Your task to perform on an android device: What is the recent news? Image 0: 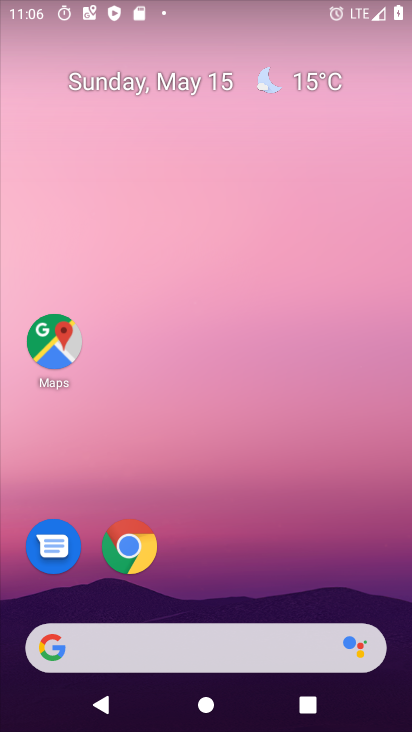
Step 0: drag from (219, 573) to (150, 197)
Your task to perform on an android device: What is the recent news? Image 1: 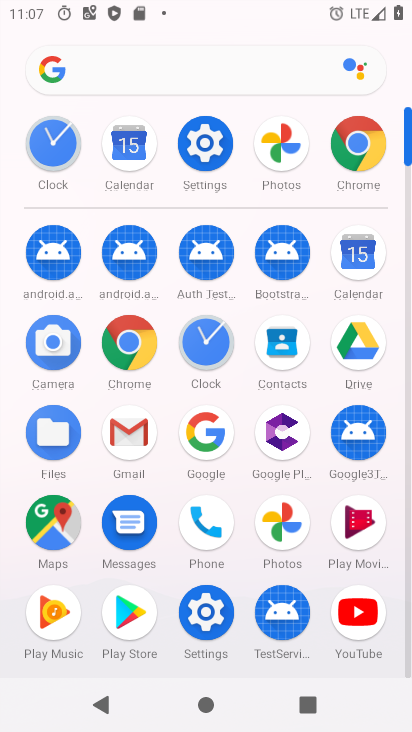
Step 1: press back button
Your task to perform on an android device: What is the recent news? Image 2: 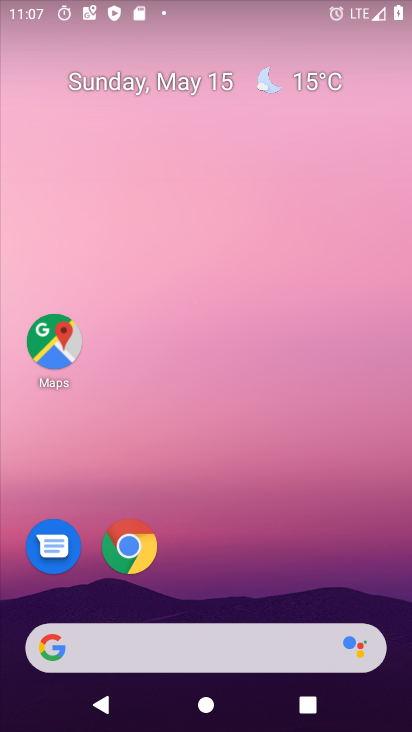
Step 2: drag from (51, 91) to (395, 311)
Your task to perform on an android device: What is the recent news? Image 3: 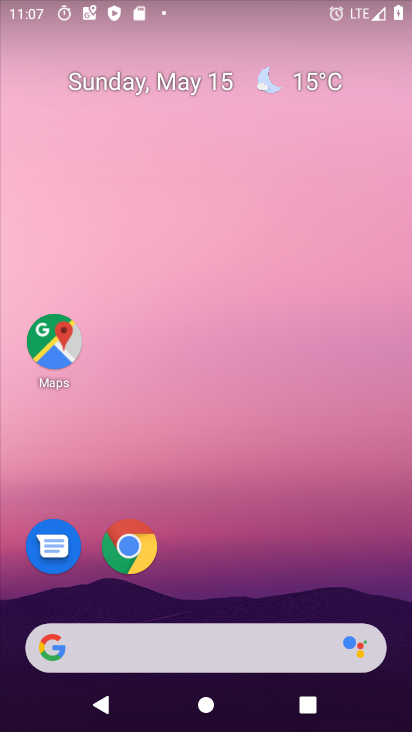
Step 3: drag from (4, 160) to (370, 393)
Your task to perform on an android device: What is the recent news? Image 4: 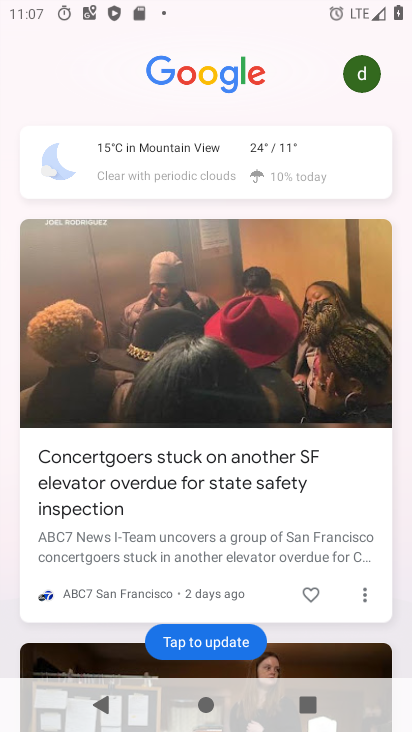
Step 4: click (172, 175)
Your task to perform on an android device: What is the recent news? Image 5: 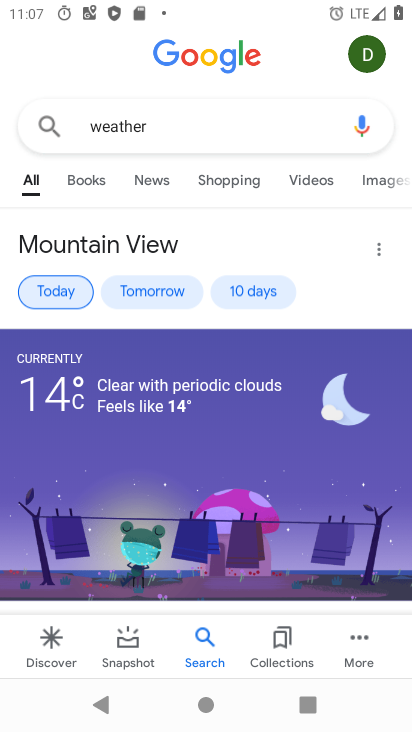
Step 5: drag from (154, 528) to (106, 87)
Your task to perform on an android device: What is the recent news? Image 6: 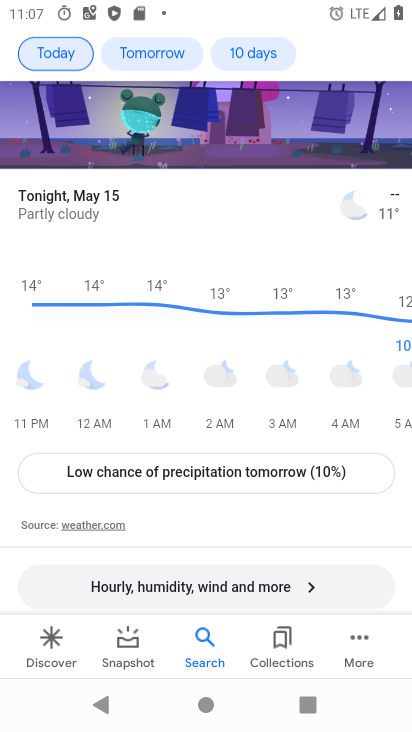
Step 6: drag from (205, 354) to (181, 57)
Your task to perform on an android device: What is the recent news? Image 7: 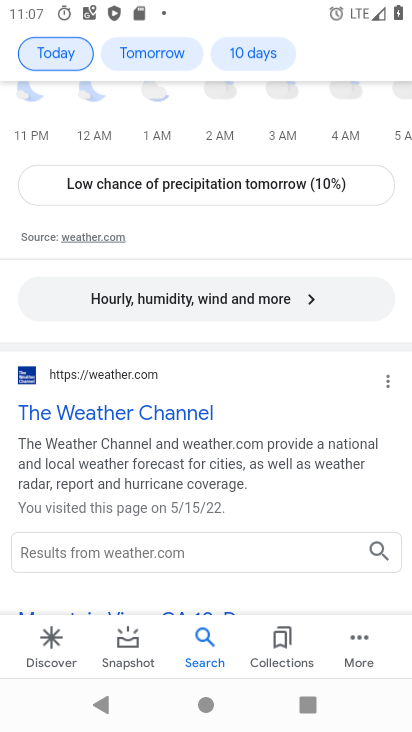
Step 7: drag from (240, 508) to (239, 160)
Your task to perform on an android device: What is the recent news? Image 8: 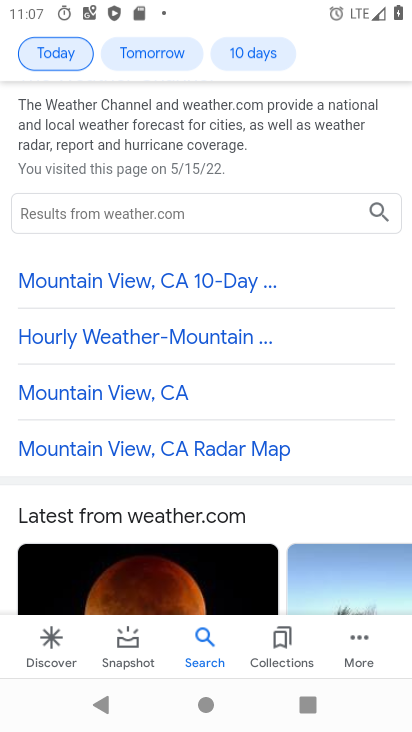
Step 8: press back button
Your task to perform on an android device: What is the recent news? Image 9: 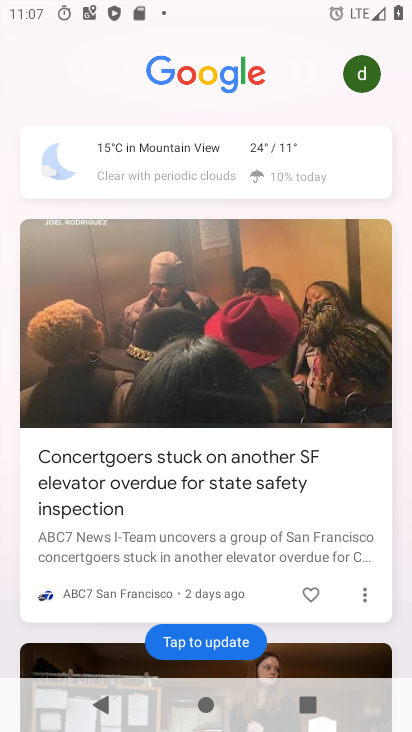
Step 9: drag from (195, 528) to (155, 230)
Your task to perform on an android device: What is the recent news? Image 10: 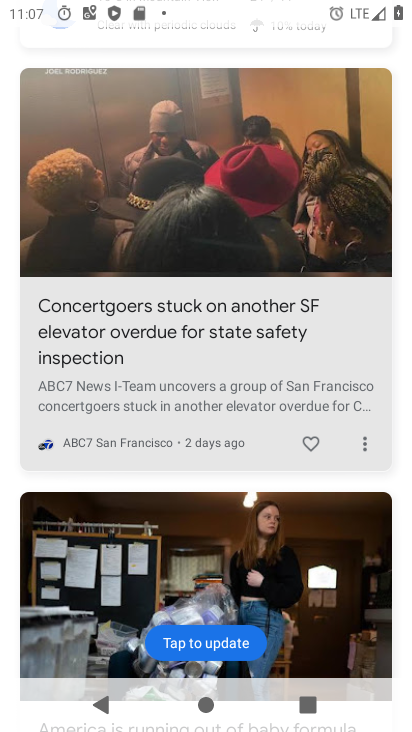
Step 10: drag from (204, 358) to (201, 236)
Your task to perform on an android device: What is the recent news? Image 11: 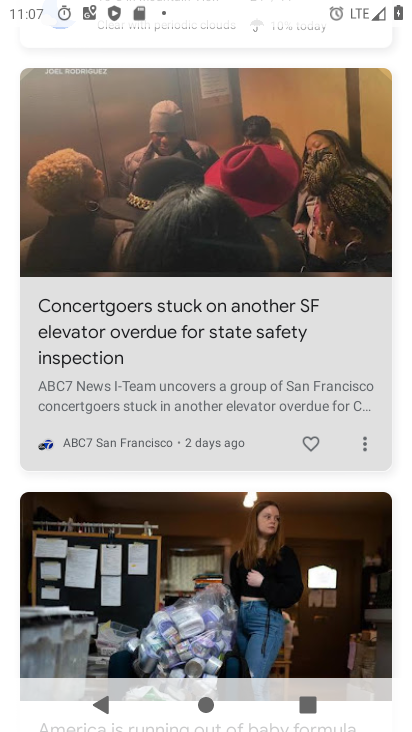
Step 11: drag from (204, 438) to (278, 255)
Your task to perform on an android device: What is the recent news? Image 12: 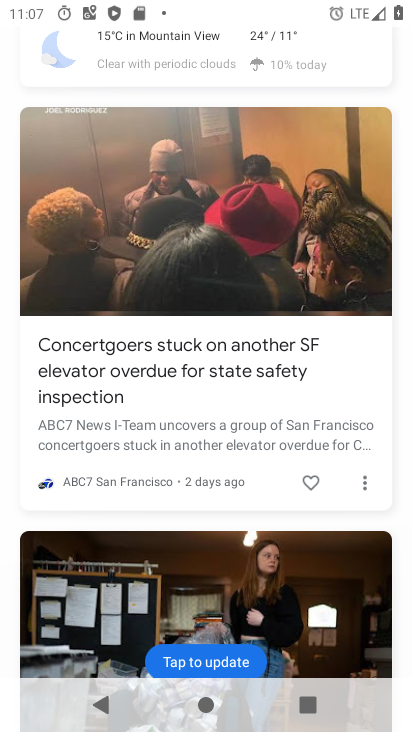
Step 12: drag from (284, 427) to (328, 234)
Your task to perform on an android device: What is the recent news? Image 13: 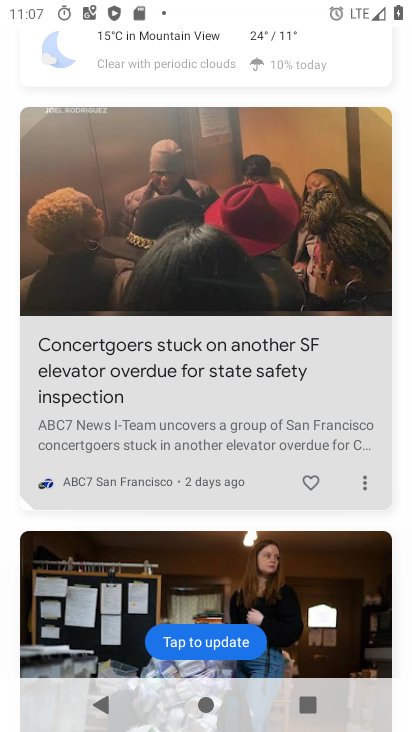
Step 13: drag from (275, 395) to (261, 196)
Your task to perform on an android device: What is the recent news? Image 14: 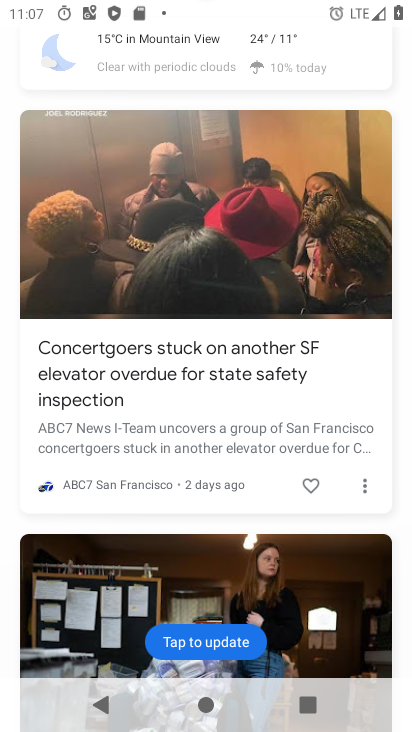
Step 14: drag from (228, 335) to (222, 193)
Your task to perform on an android device: What is the recent news? Image 15: 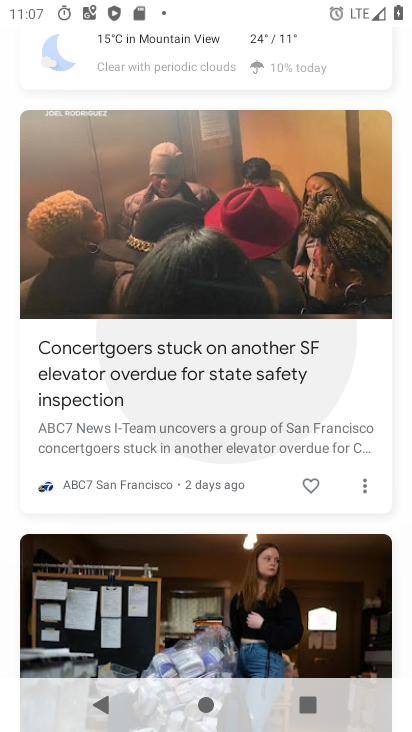
Step 15: drag from (215, 441) to (215, 226)
Your task to perform on an android device: What is the recent news? Image 16: 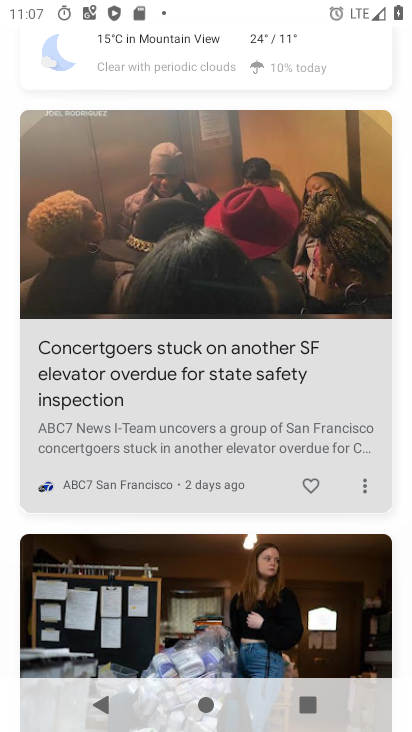
Step 16: drag from (208, 394) to (207, 169)
Your task to perform on an android device: What is the recent news? Image 17: 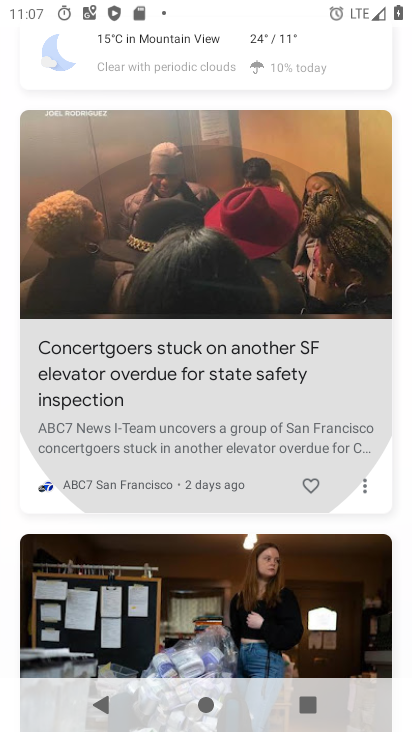
Step 17: drag from (169, 413) to (172, 219)
Your task to perform on an android device: What is the recent news? Image 18: 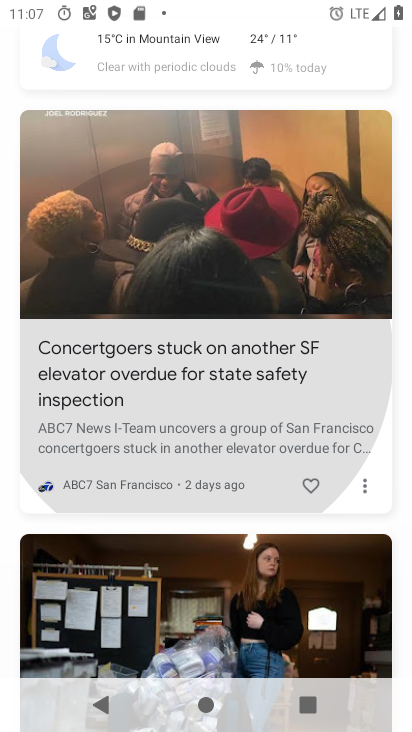
Step 18: drag from (168, 494) to (195, 261)
Your task to perform on an android device: What is the recent news? Image 19: 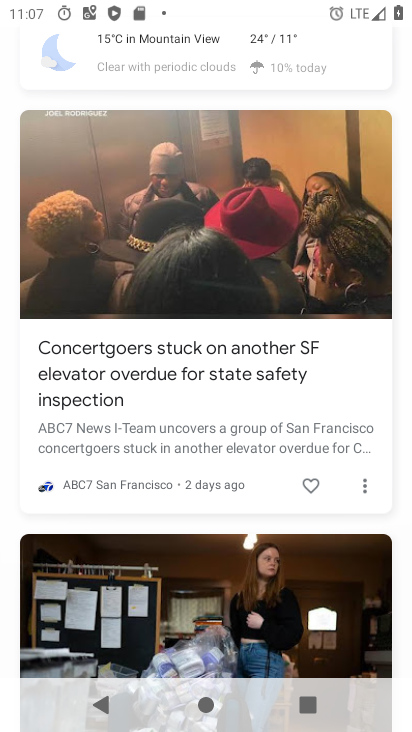
Step 19: drag from (177, 564) to (210, 236)
Your task to perform on an android device: What is the recent news? Image 20: 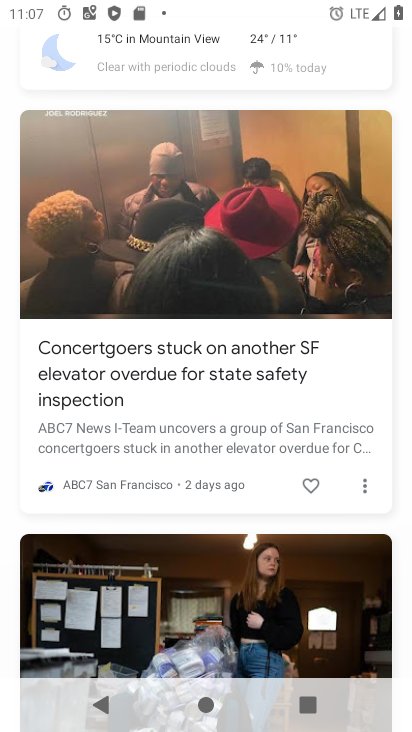
Step 20: drag from (195, 506) to (215, 253)
Your task to perform on an android device: What is the recent news? Image 21: 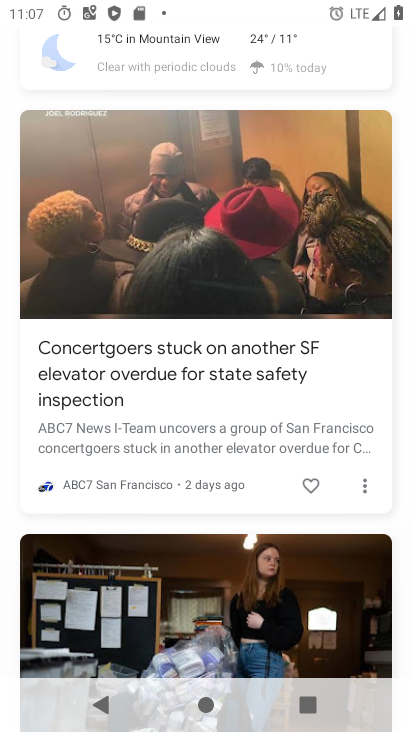
Step 21: click (204, 299)
Your task to perform on an android device: What is the recent news? Image 22: 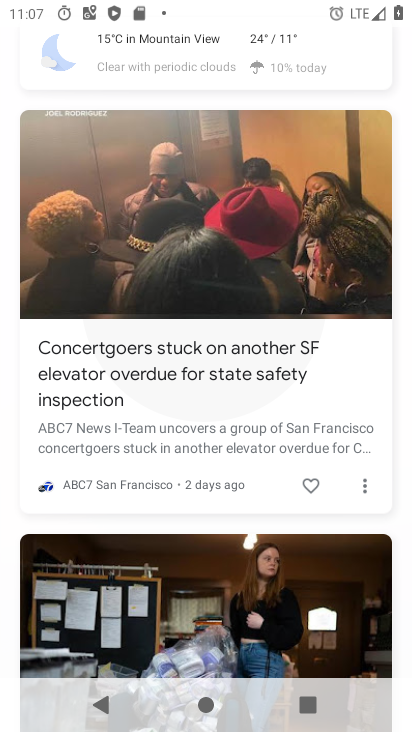
Step 22: task complete